Your task to perform on an android device: Empty the shopping cart on costco. Search for razer blade on costco, select the first entry, add it to the cart, then select checkout. Image 0: 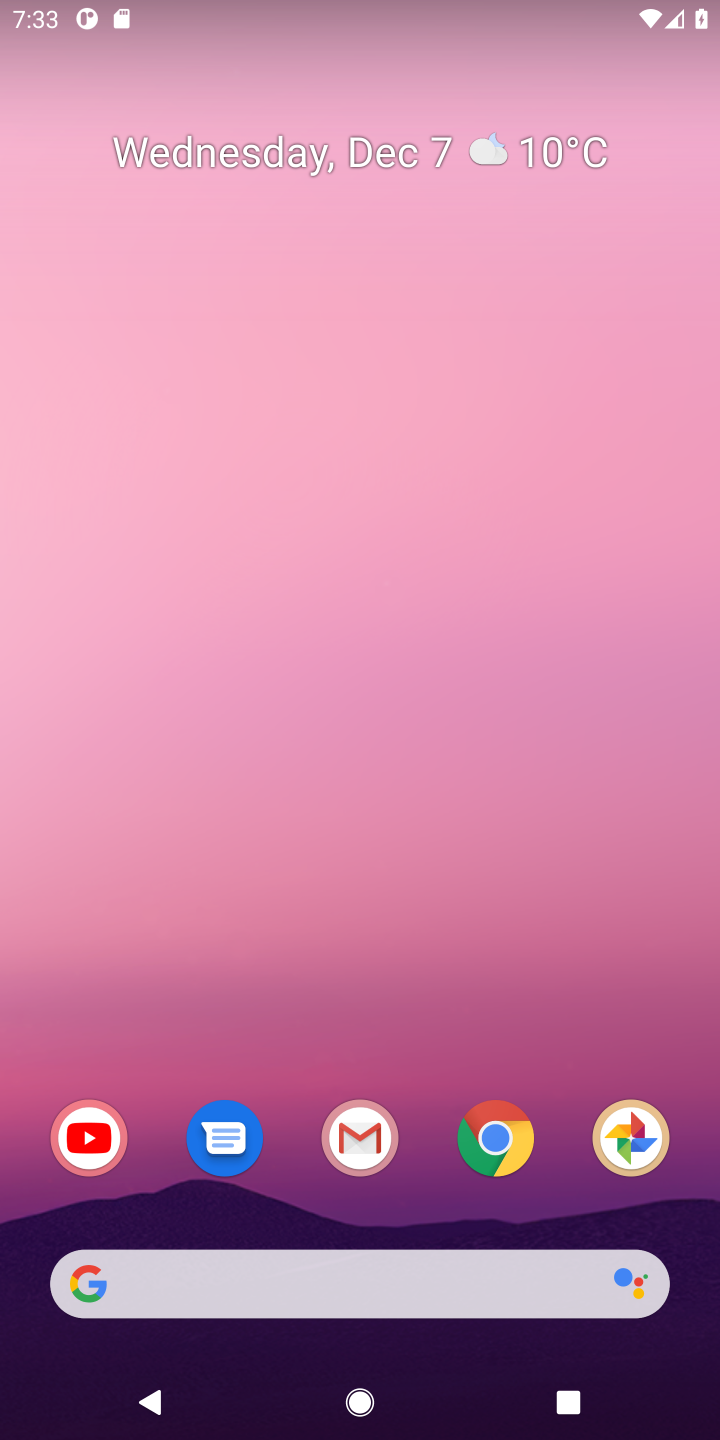
Step 0: press home button
Your task to perform on an android device: Empty the shopping cart on costco. Search for razer blade on costco, select the first entry, add it to the cart, then select checkout. Image 1: 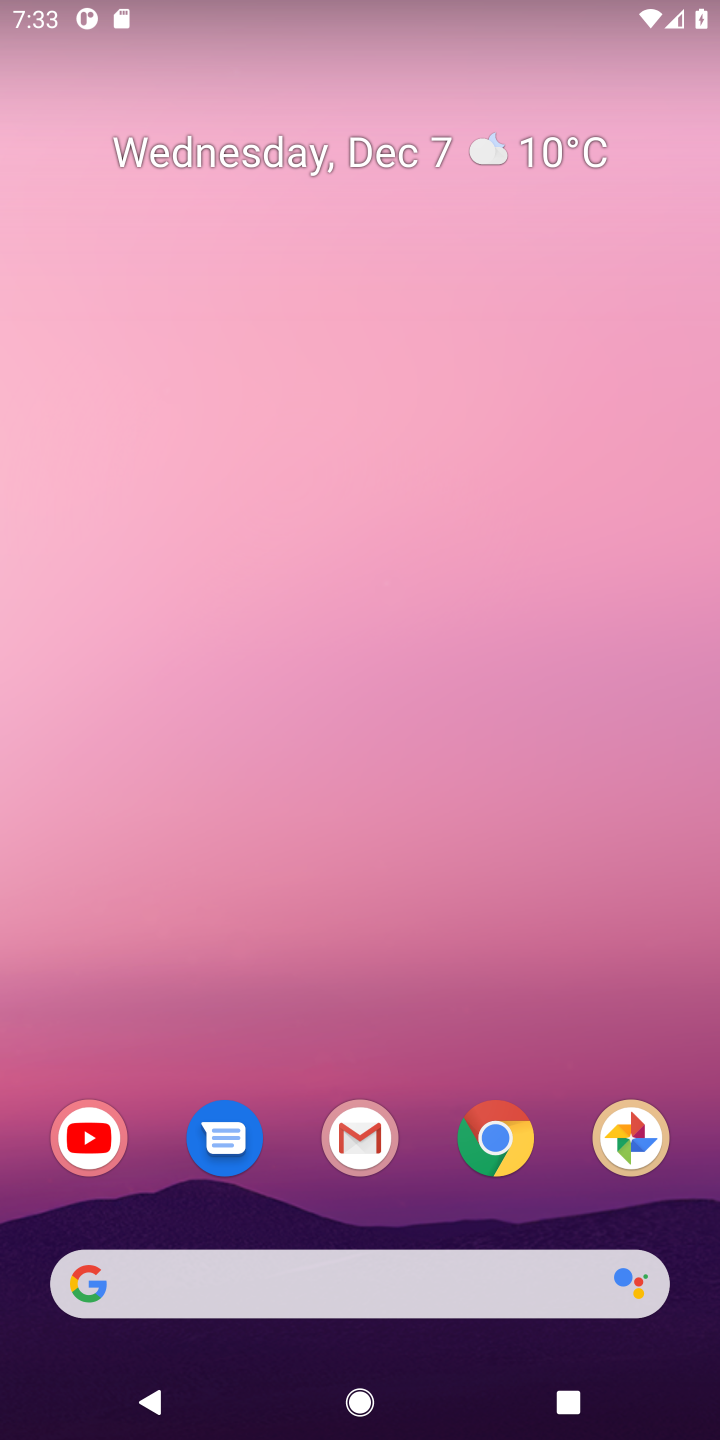
Step 1: click (159, 1268)
Your task to perform on an android device: Empty the shopping cart on costco. Search for razer blade on costco, select the first entry, add it to the cart, then select checkout. Image 2: 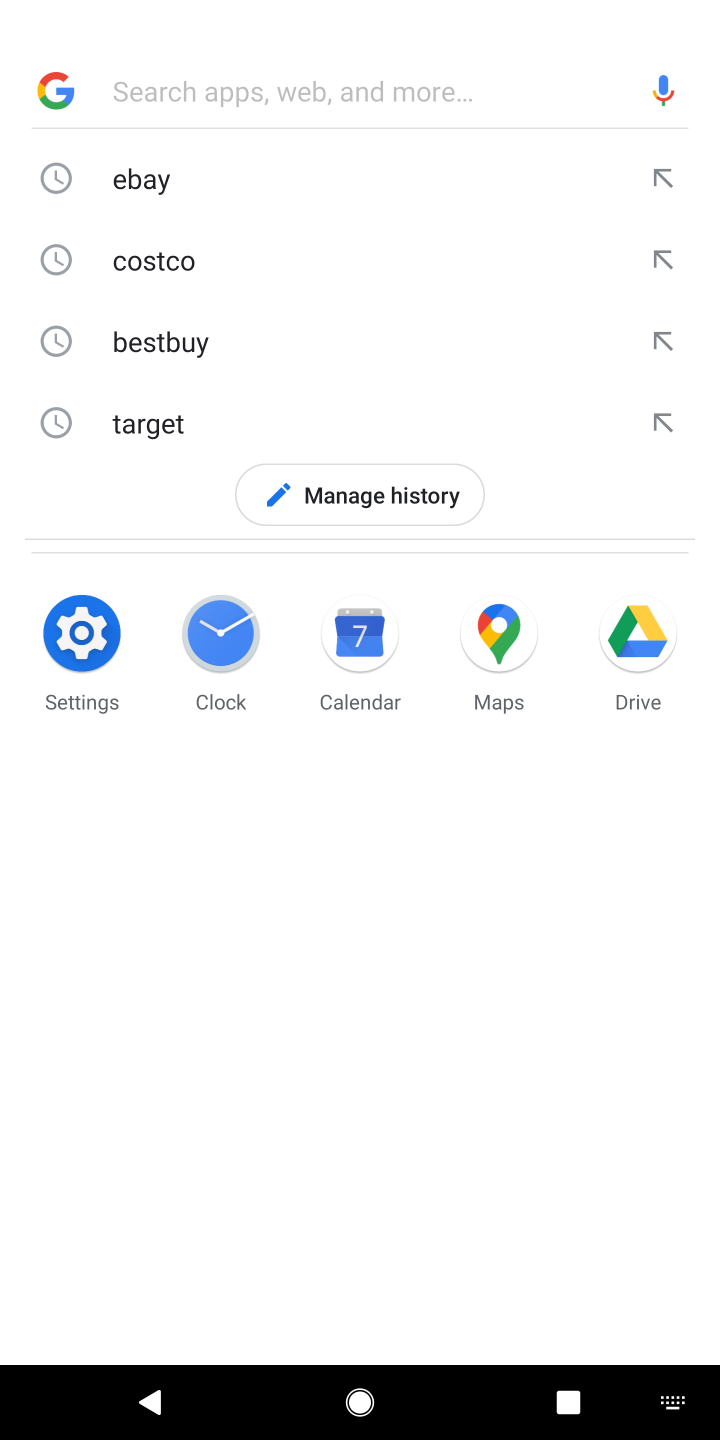
Step 2: type "costco"
Your task to perform on an android device: Empty the shopping cart on costco. Search for razer blade on costco, select the first entry, add it to the cart, then select checkout. Image 3: 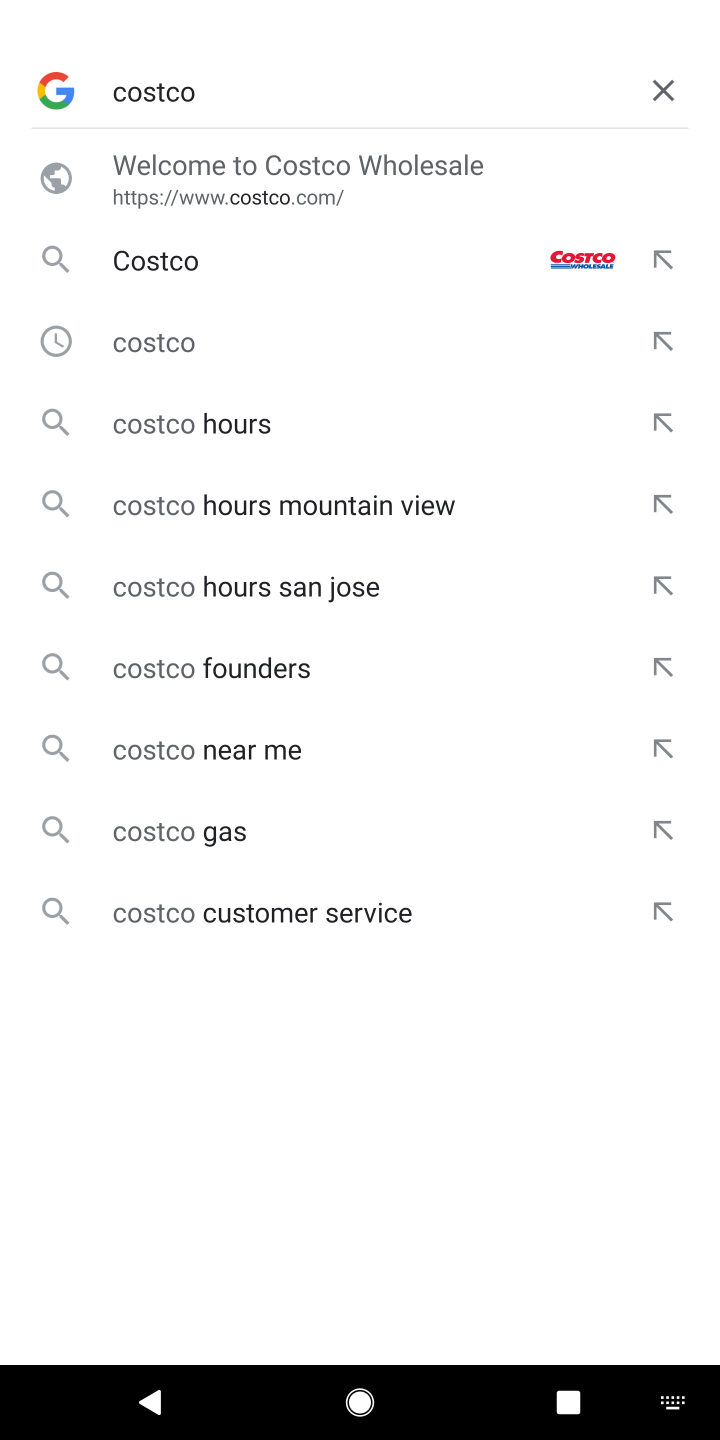
Step 3: press enter
Your task to perform on an android device: Empty the shopping cart on costco. Search for razer blade on costco, select the first entry, add it to the cart, then select checkout. Image 4: 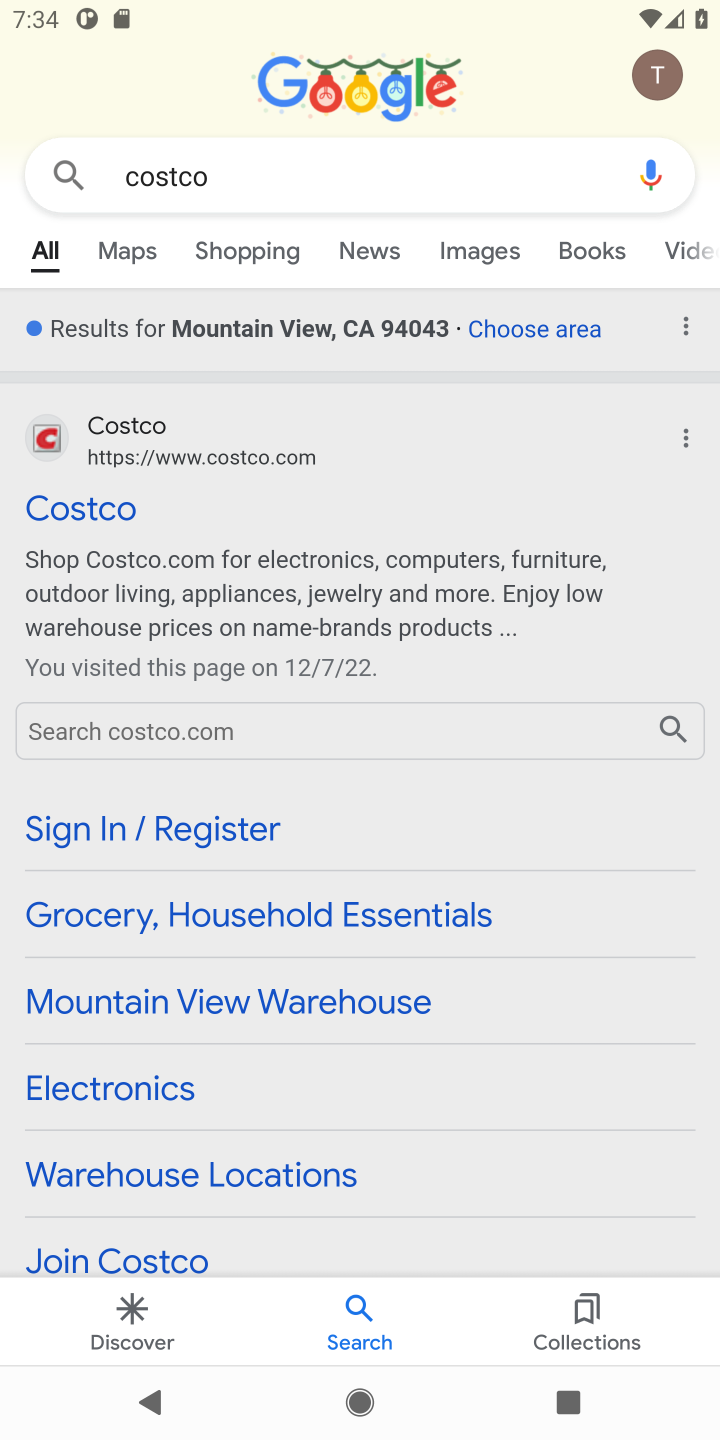
Step 4: click (94, 503)
Your task to perform on an android device: Empty the shopping cart on costco. Search for razer blade on costco, select the first entry, add it to the cart, then select checkout. Image 5: 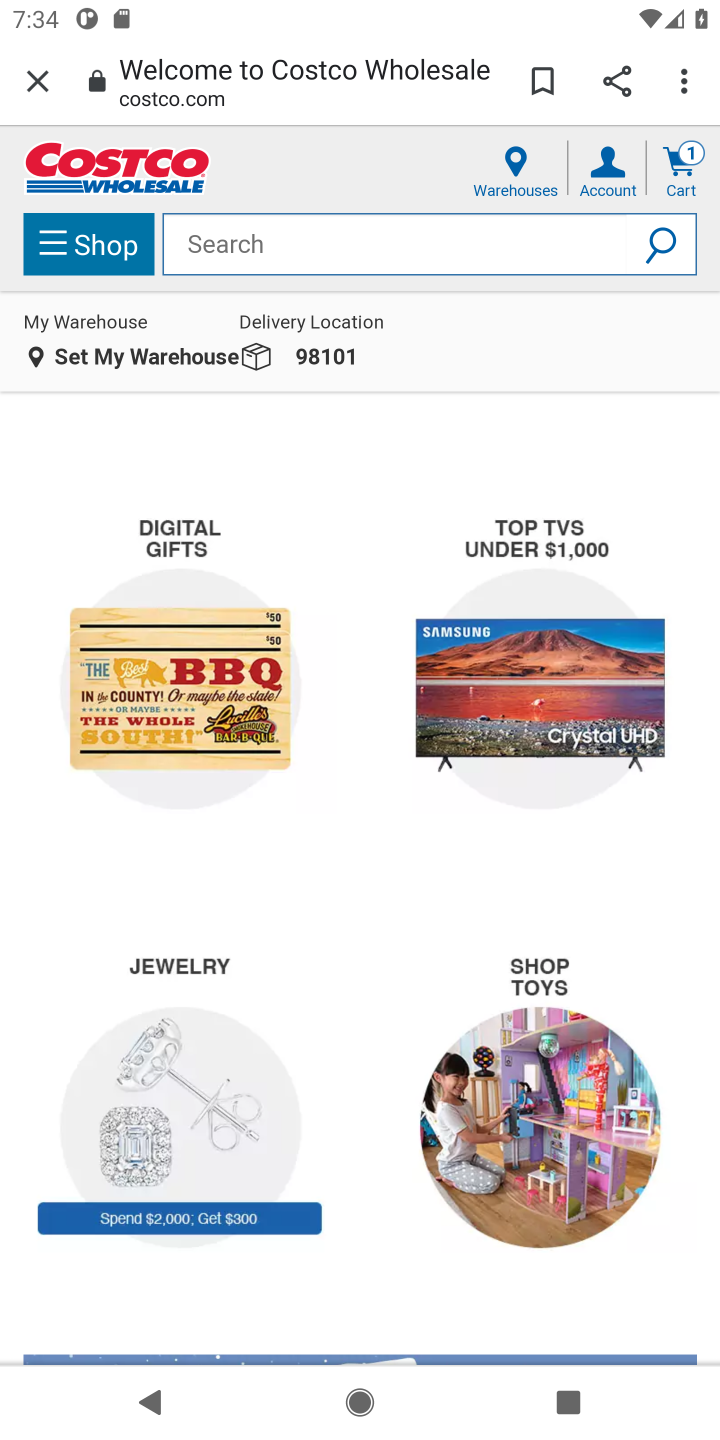
Step 5: click (681, 160)
Your task to perform on an android device: Empty the shopping cart on costco. Search for razer blade on costco, select the first entry, add it to the cart, then select checkout. Image 6: 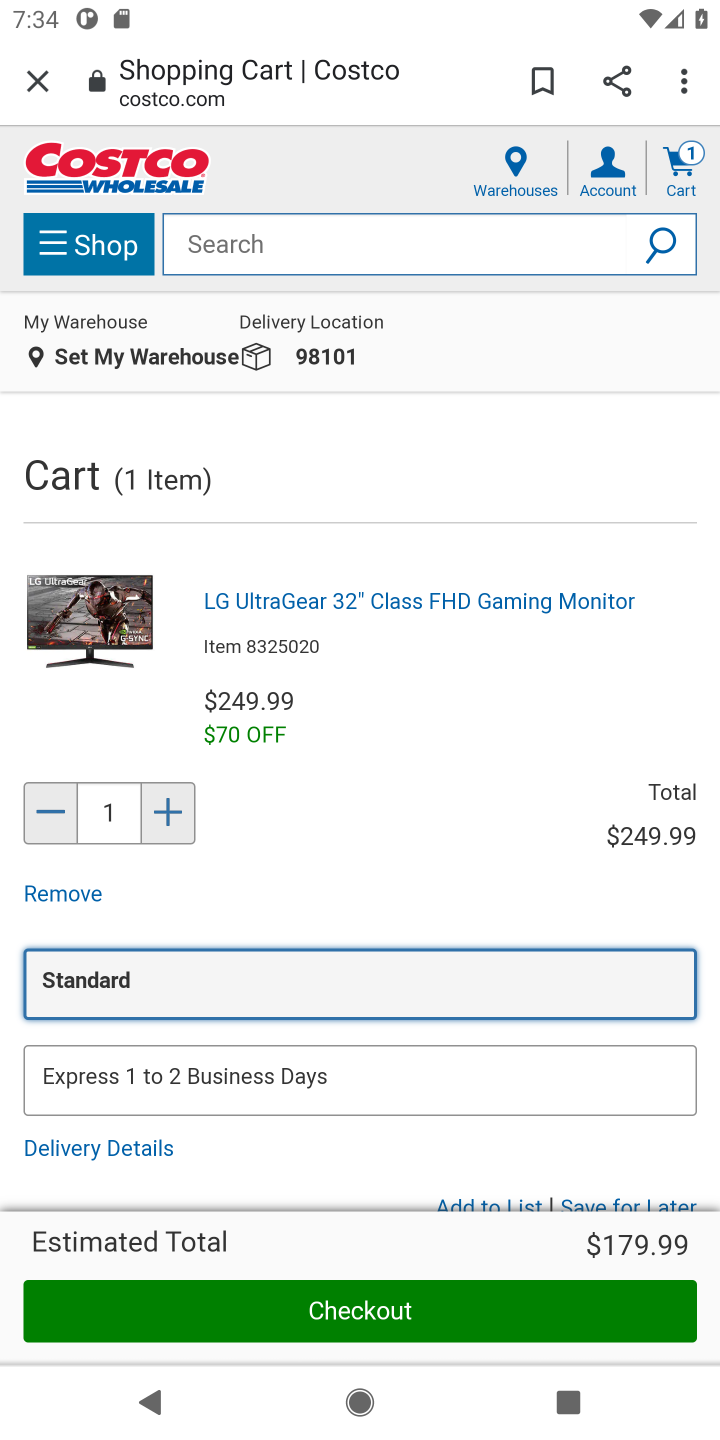
Step 6: click (54, 895)
Your task to perform on an android device: Empty the shopping cart on costco. Search for razer blade on costco, select the first entry, add it to the cart, then select checkout. Image 7: 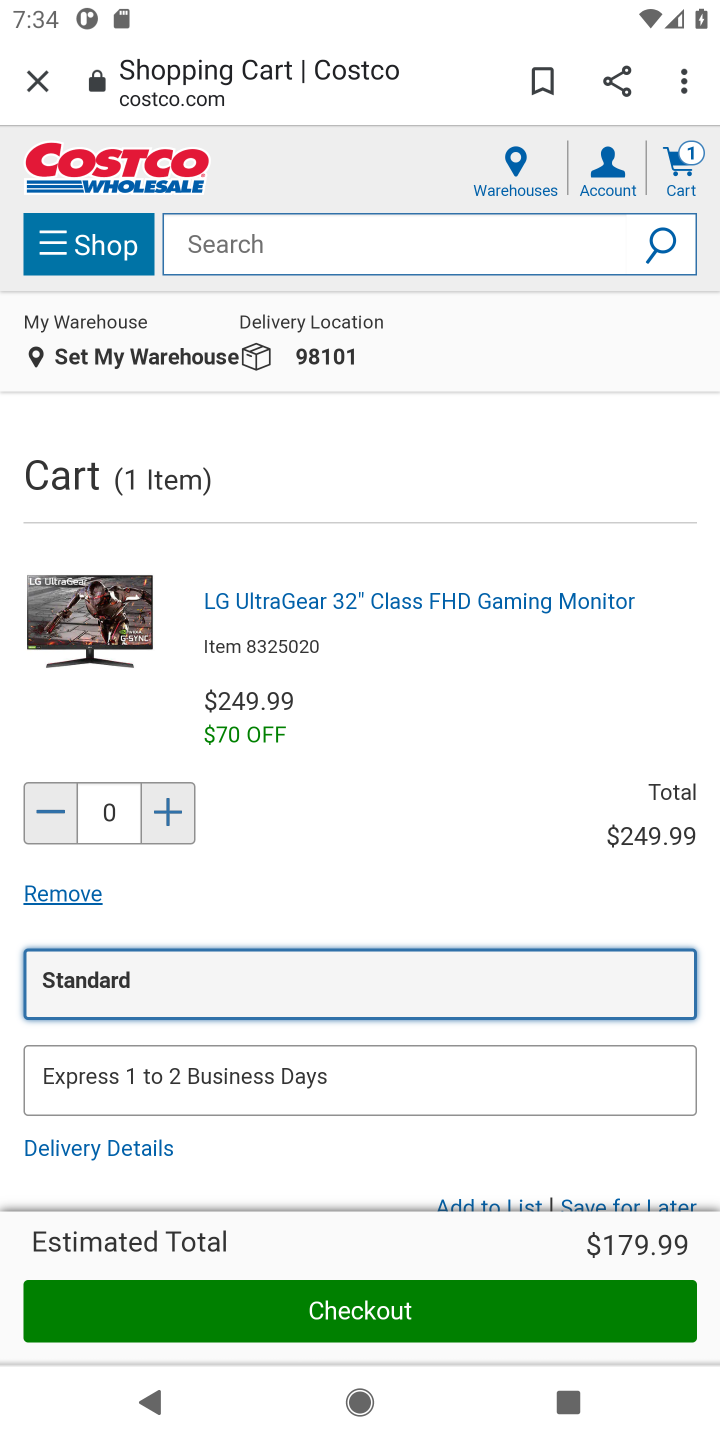
Step 7: click (54, 895)
Your task to perform on an android device: Empty the shopping cart on costco. Search for razer blade on costco, select the first entry, add it to the cart, then select checkout. Image 8: 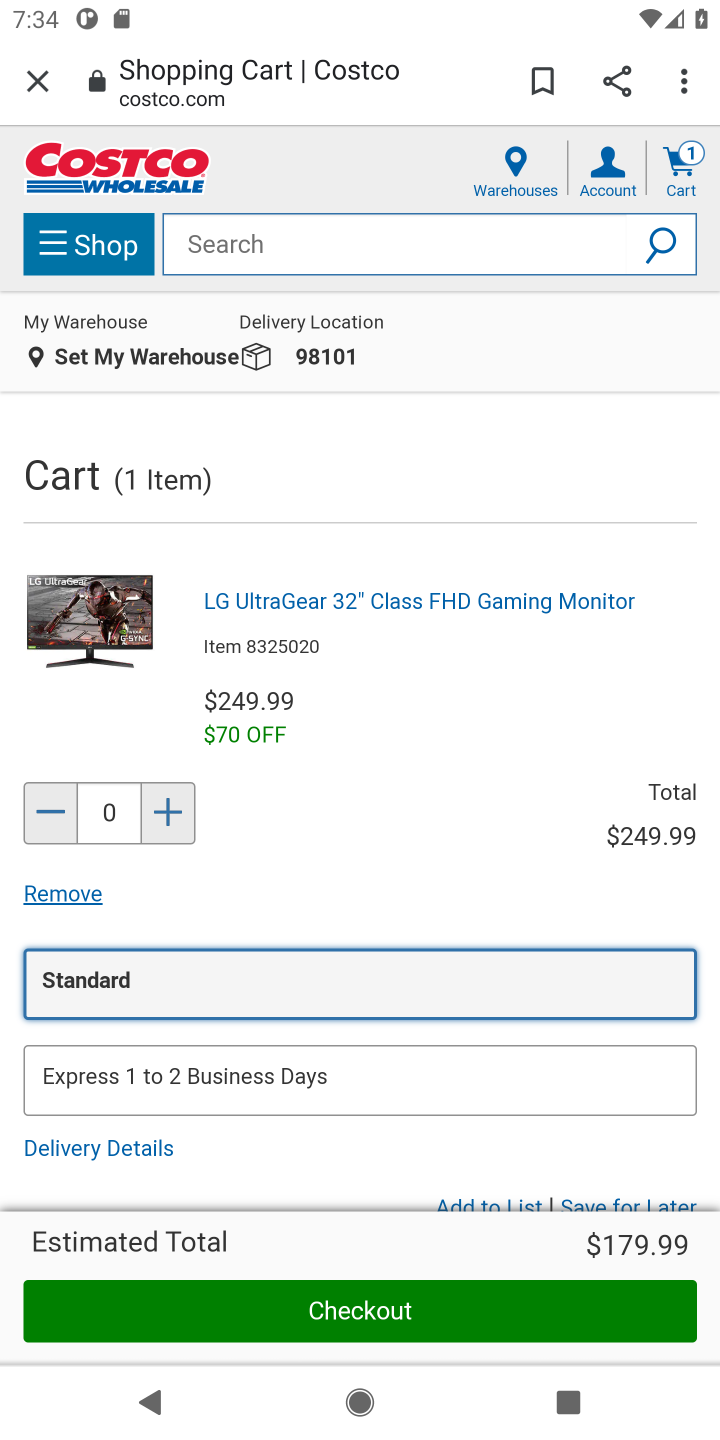
Step 8: click (72, 898)
Your task to perform on an android device: Empty the shopping cart on costco. Search for razer blade on costco, select the first entry, add it to the cart, then select checkout. Image 9: 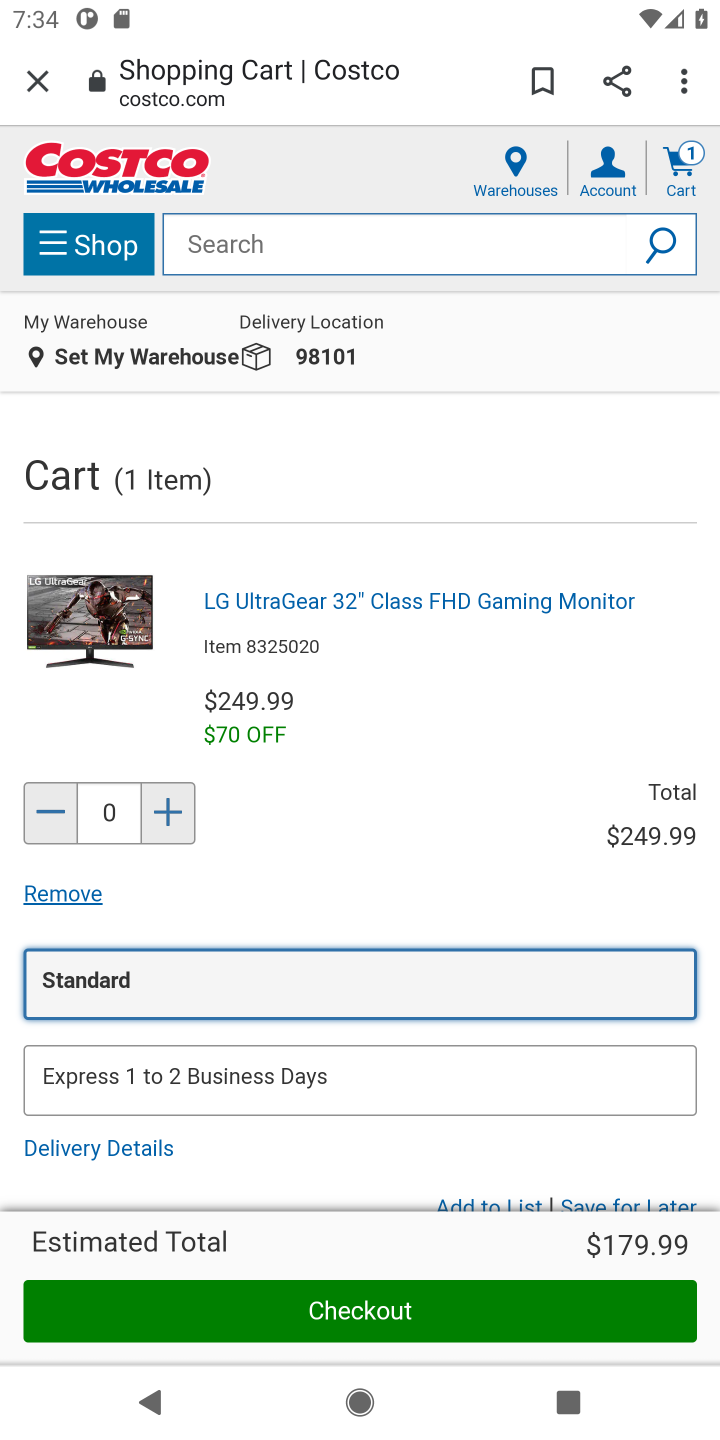
Step 9: click (73, 894)
Your task to perform on an android device: Empty the shopping cart on costco. Search for razer blade on costco, select the first entry, add it to the cart, then select checkout. Image 10: 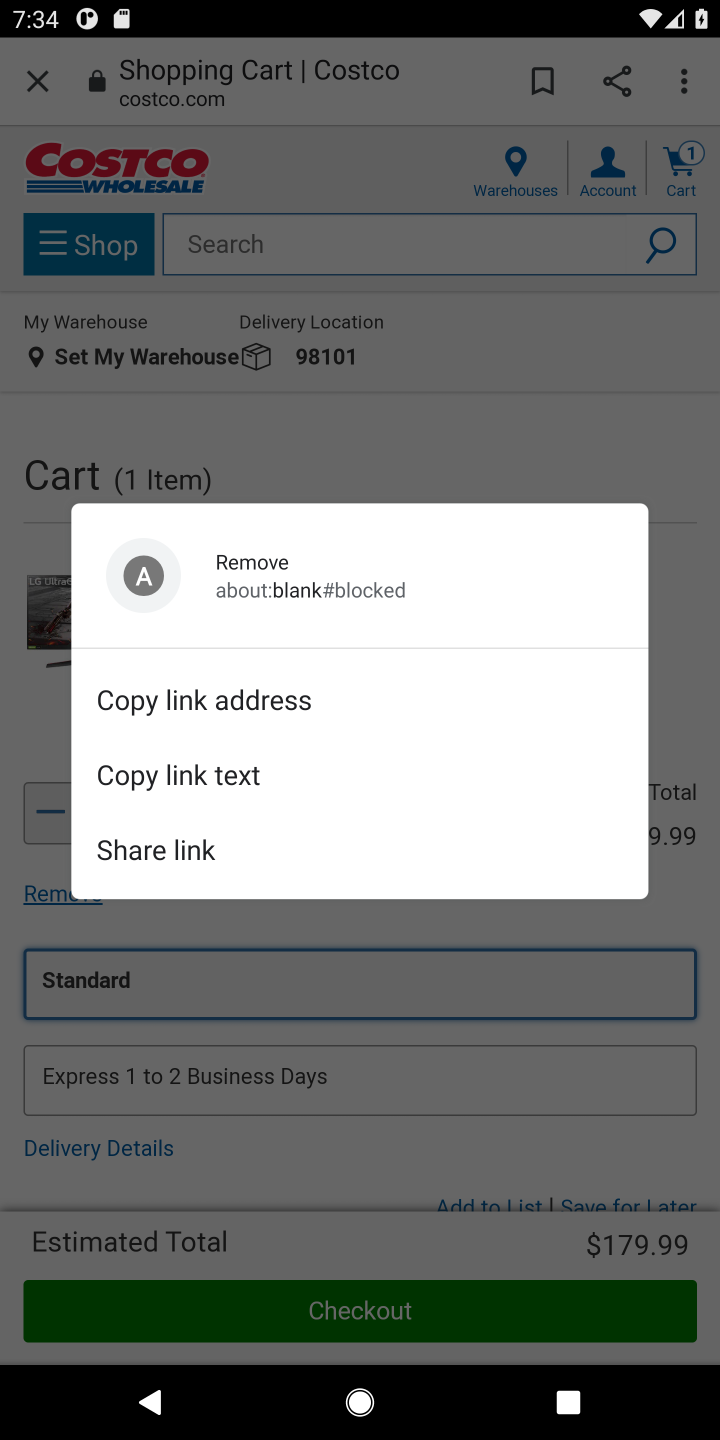
Step 10: click (502, 394)
Your task to perform on an android device: Empty the shopping cart on costco. Search for razer blade on costco, select the first entry, add it to the cart, then select checkout. Image 11: 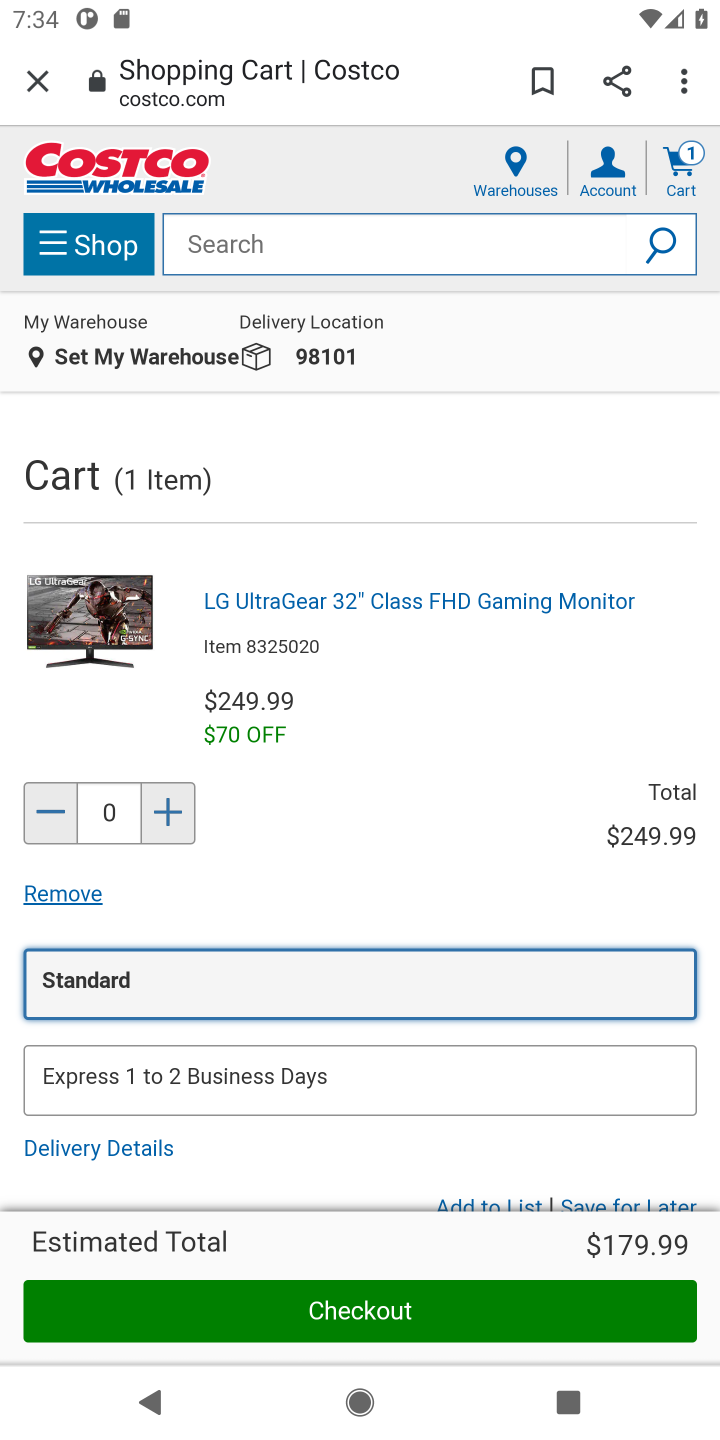
Step 11: task complete